Your task to perform on an android device: Search for "acer predator" on newegg, select the first entry, and add it to the cart. Image 0: 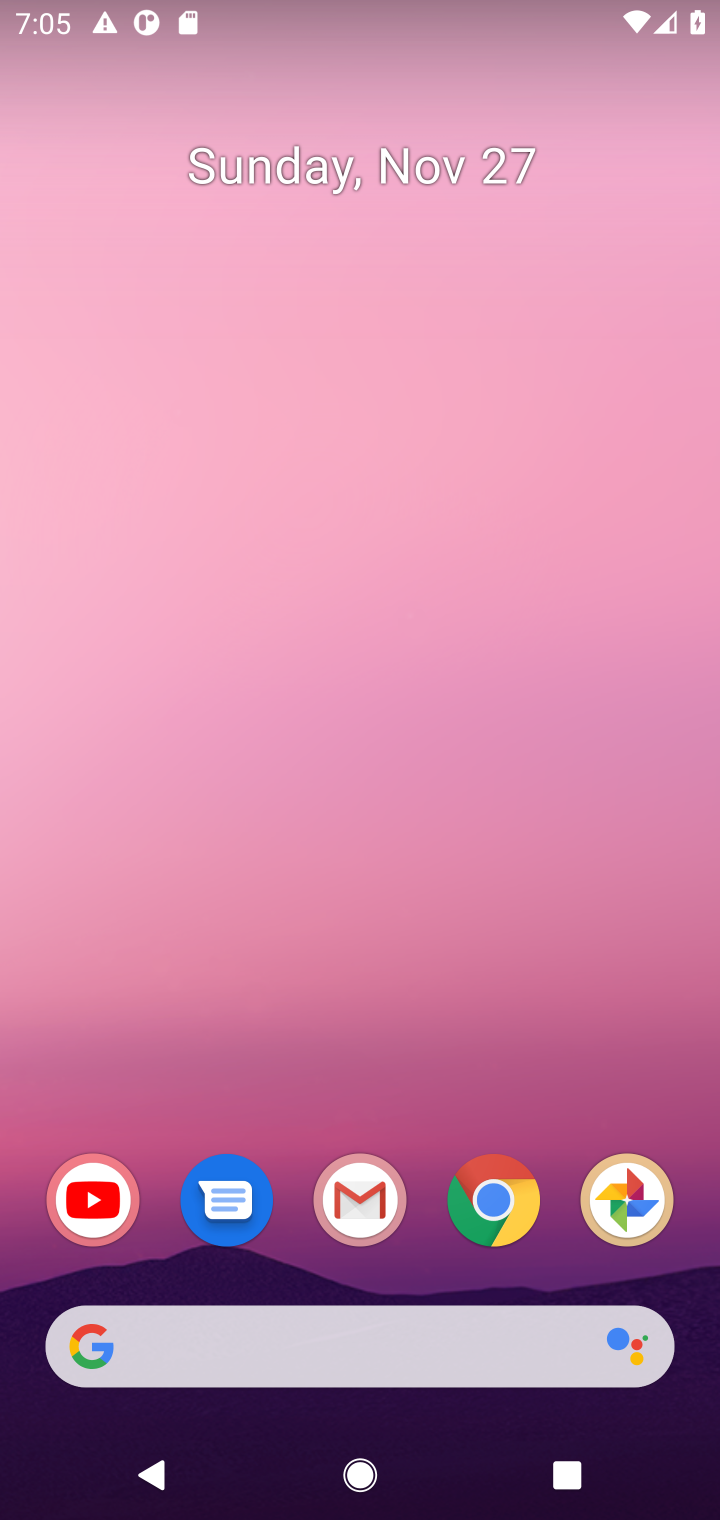
Step 0: click (482, 1209)
Your task to perform on an android device: Search for "acer predator" on newegg, select the first entry, and add it to the cart. Image 1: 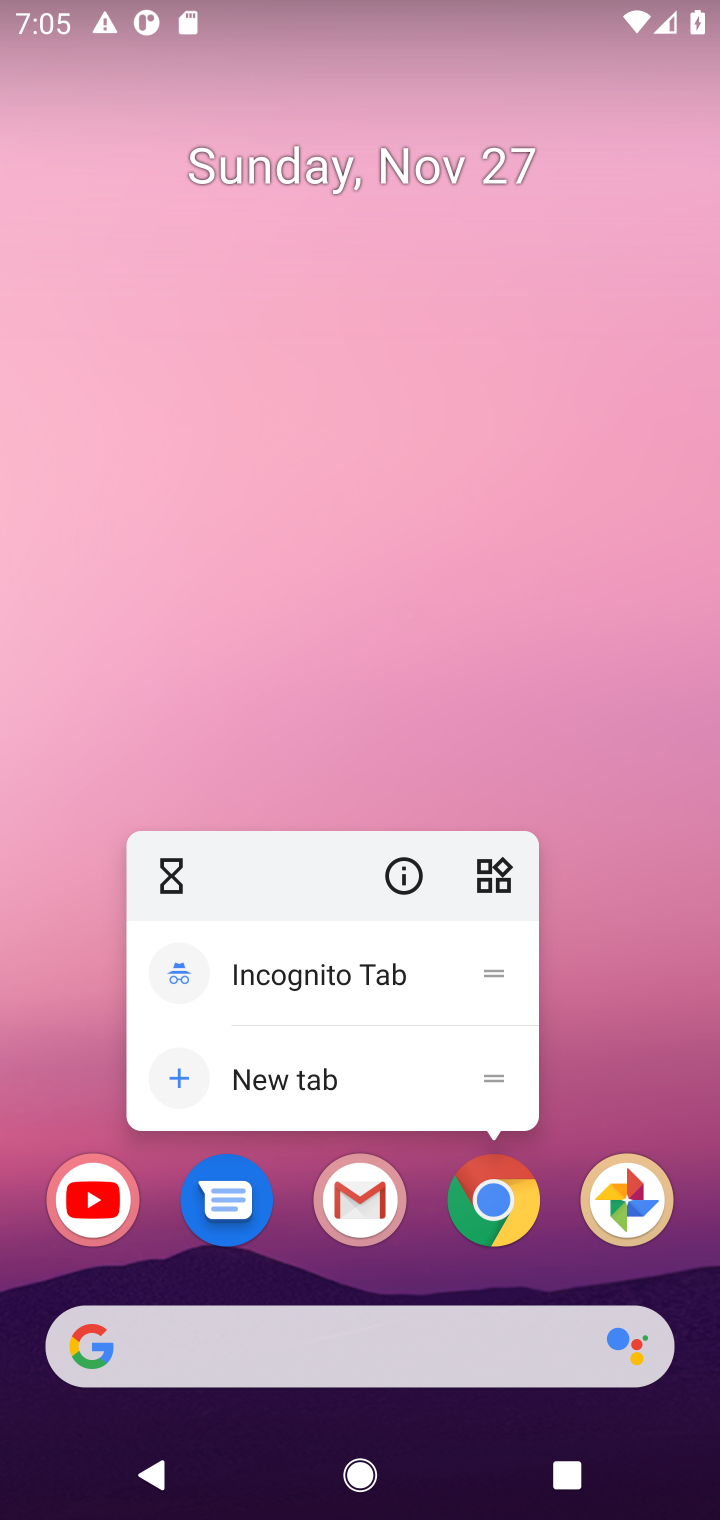
Step 1: click (510, 1199)
Your task to perform on an android device: Search for "acer predator" on newegg, select the first entry, and add it to the cart. Image 2: 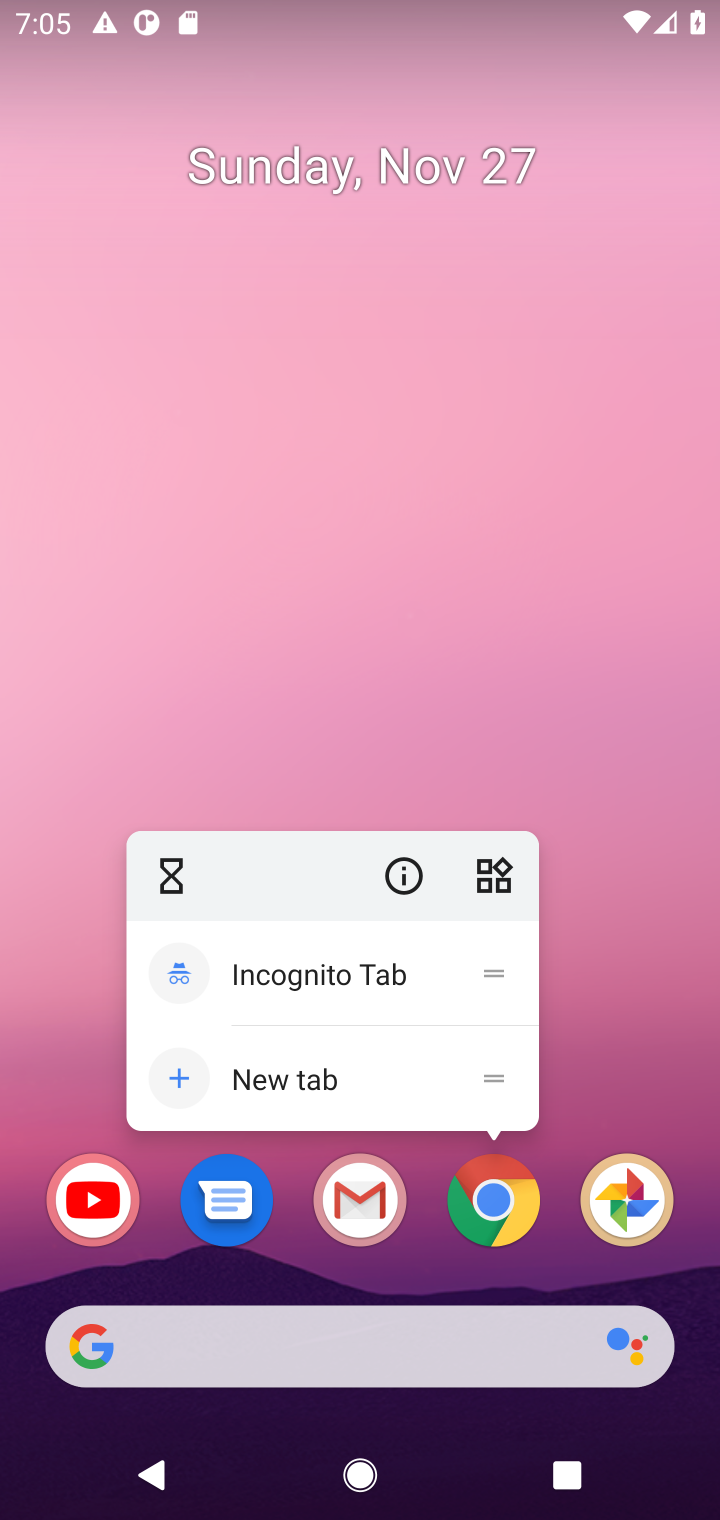
Step 2: click (510, 1199)
Your task to perform on an android device: Search for "acer predator" on newegg, select the first entry, and add it to the cart. Image 3: 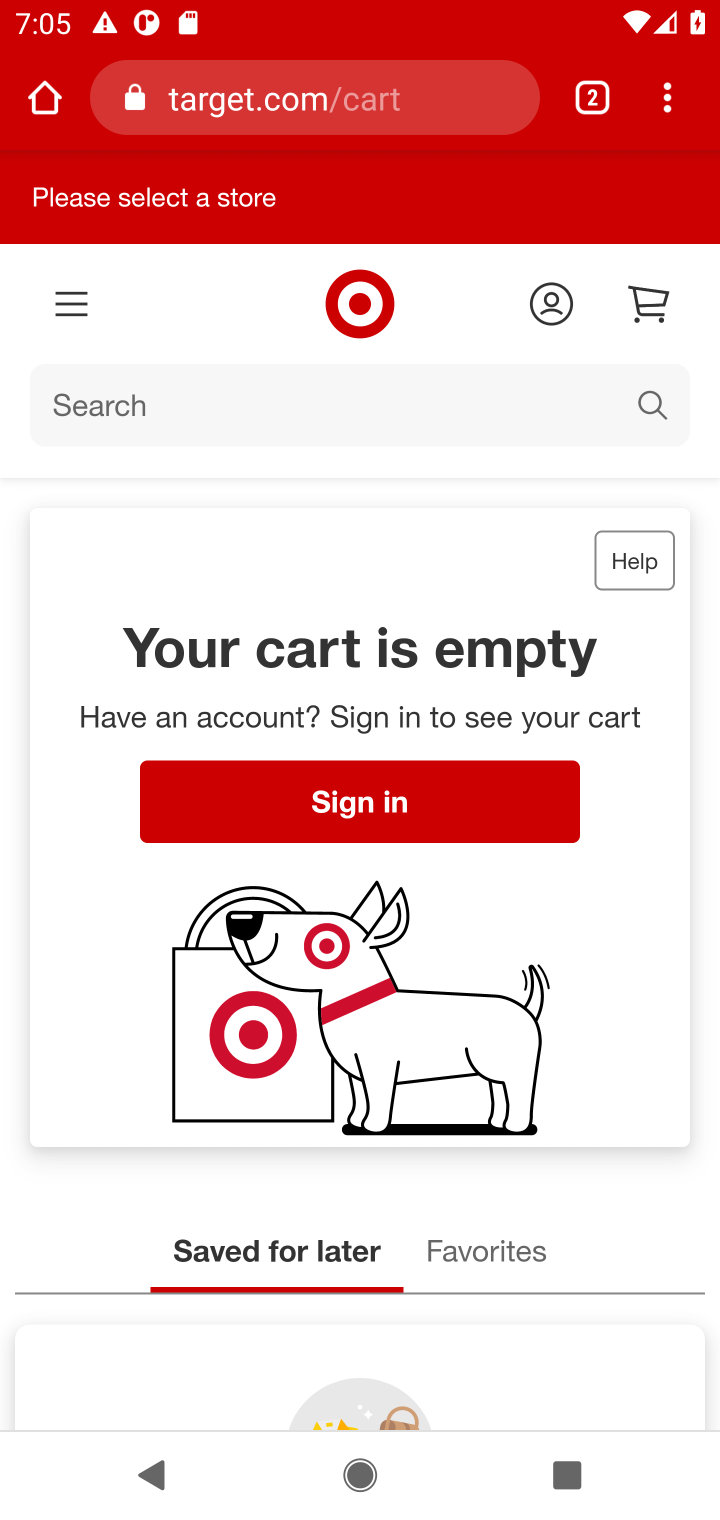
Step 3: click (257, 106)
Your task to perform on an android device: Search for "acer predator" on newegg, select the first entry, and add it to the cart. Image 4: 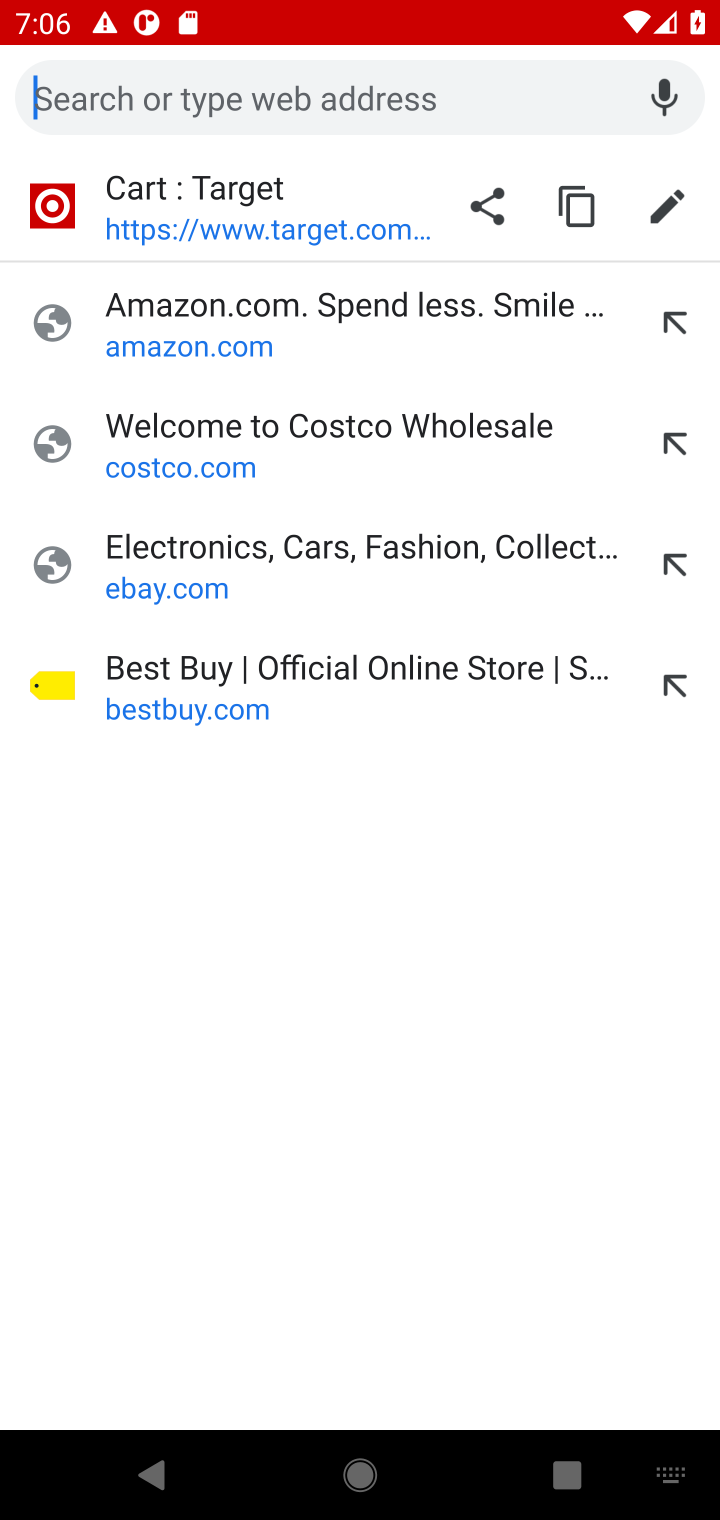
Step 4: type "newegg.com"
Your task to perform on an android device: Search for "acer predator" on newegg, select the first entry, and add it to the cart. Image 5: 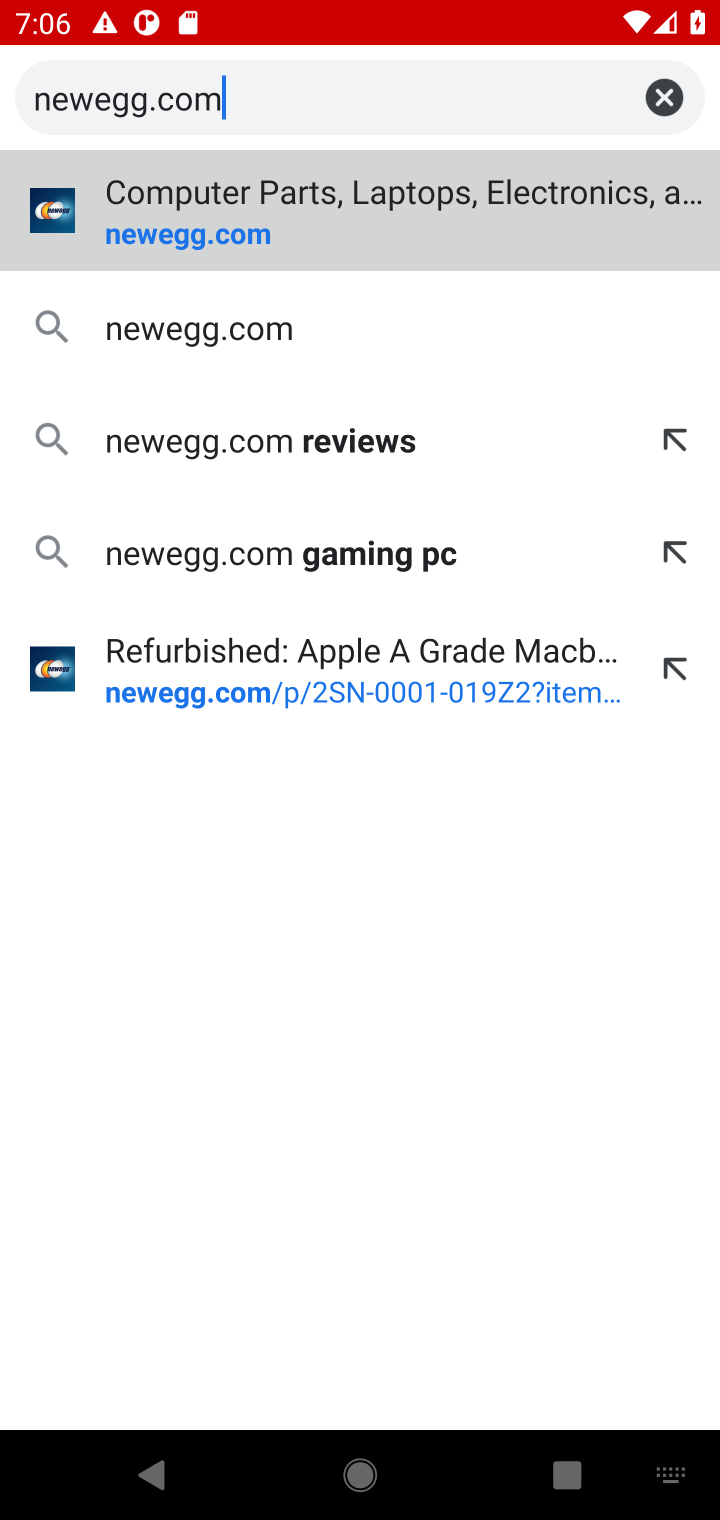
Step 5: click (185, 232)
Your task to perform on an android device: Search for "acer predator" on newegg, select the first entry, and add it to the cart. Image 6: 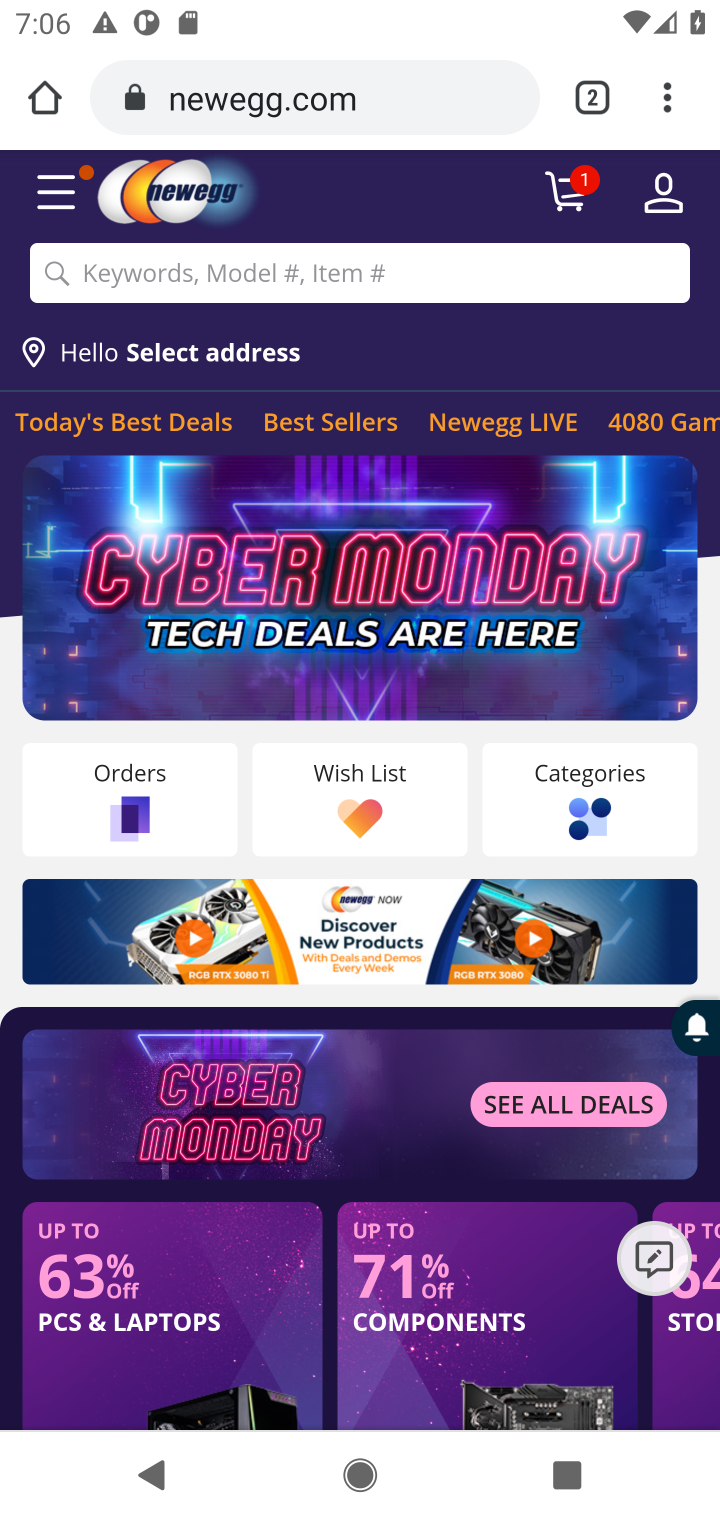
Step 6: click (90, 259)
Your task to perform on an android device: Search for "acer predator" on newegg, select the first entry, and add it to the cart. Image 7: 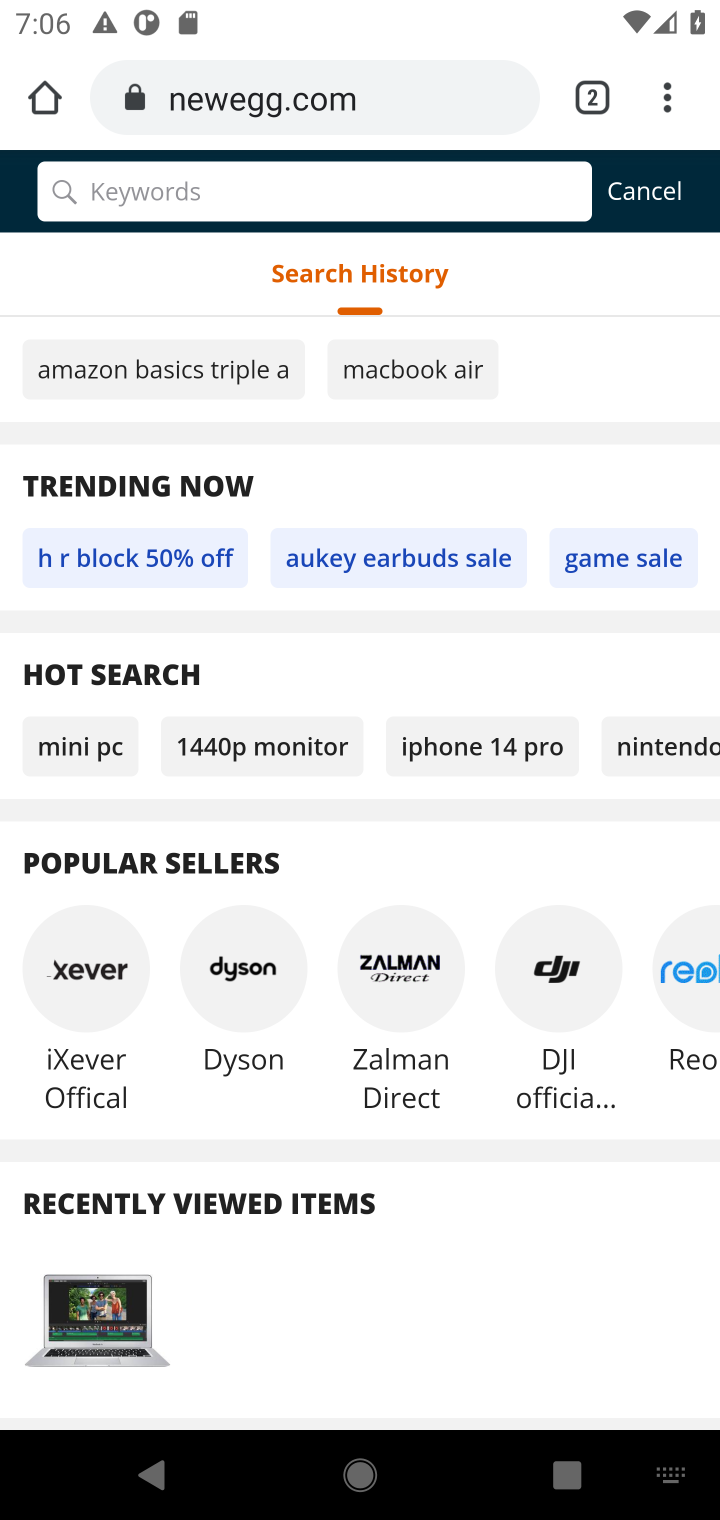
Step 7: type "acer predator"
Your task to perform on an android device: Search for "acer predator" on newegg, select the first entry, and add it to the cart. Image 8: 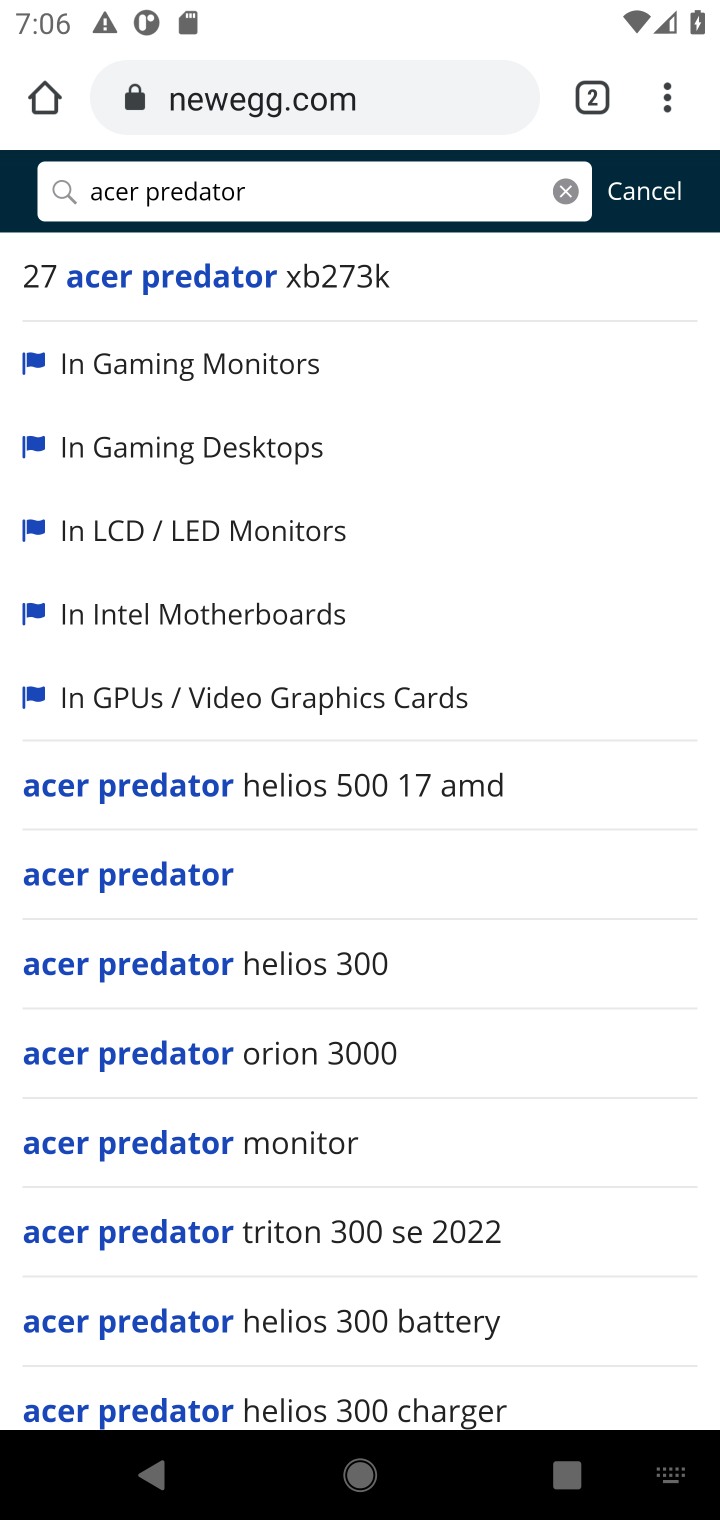
Step 8: click (96, 878)
Your task to perform on an android device: Search for "acer predator" on newegg, select the first entry, and add it to the cart. Image 9: 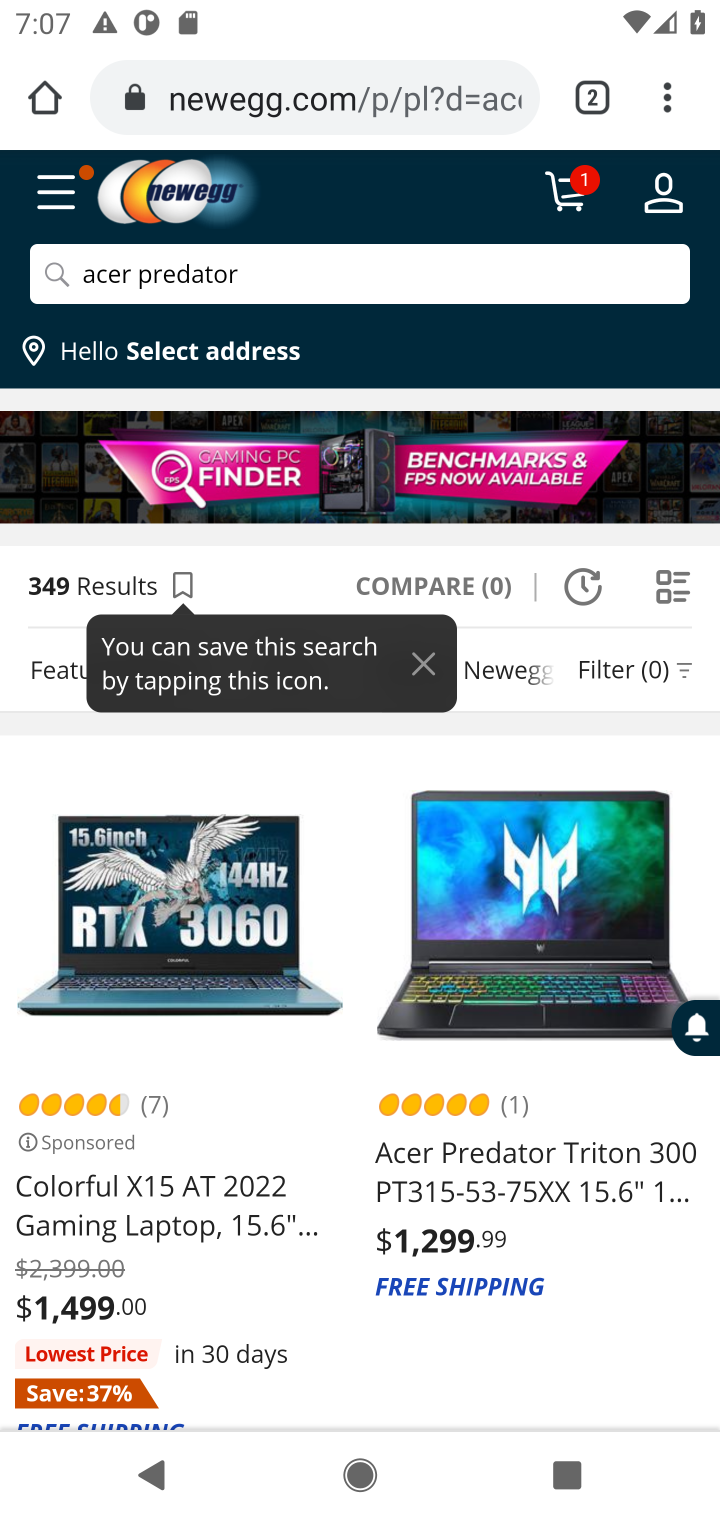
Step 9: task complete